Your task to perform on an android device: snooze an email in the gmail app Image 0: 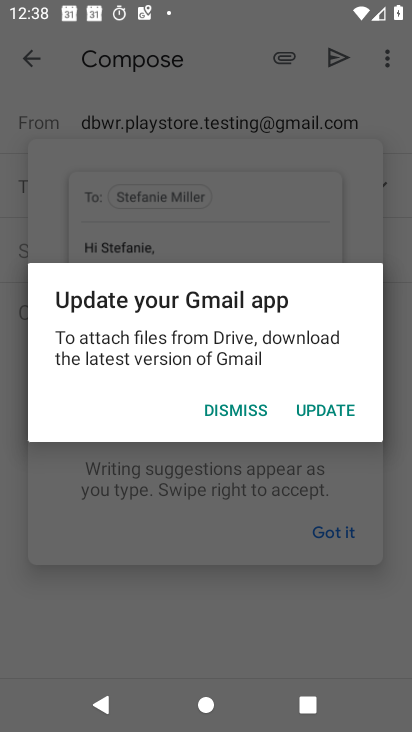
Step 0: press home button
Your task to perform on an android device: snooze an email in the gmail app Image 1: 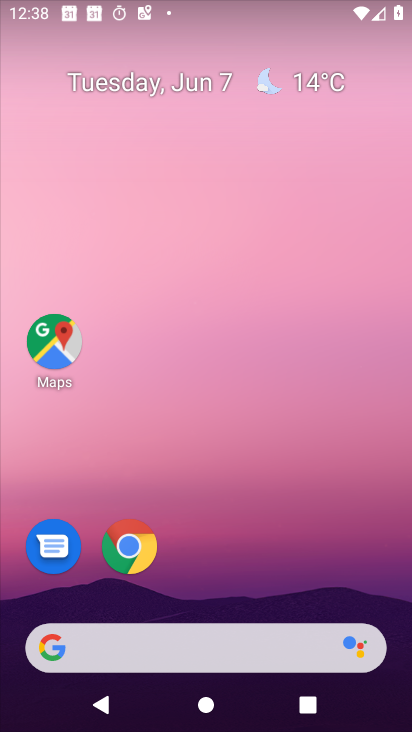
Step 1: drag from (265, 592) to (301, 69)
Your task to perform on an android device: snooze an email in the gmail app Image 2: 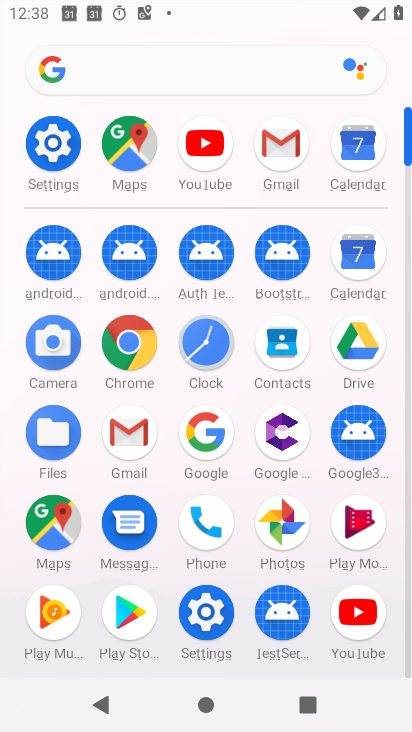
Step 2: click (129, 438)
Your task to perform on an android device: snooze an email in the gmail app Image 3: 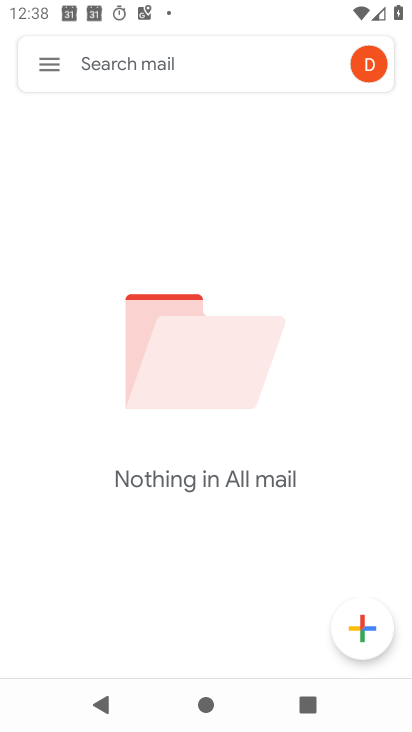
Step 3: task complete